Your task to perform on an android device: What's the weather today? Image 0: 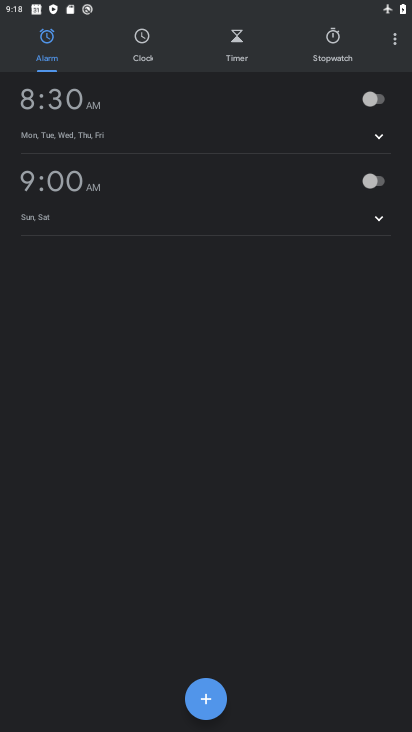
Step 0: press home button
Your task to perform on an android device: What's the weather today? Image 1: 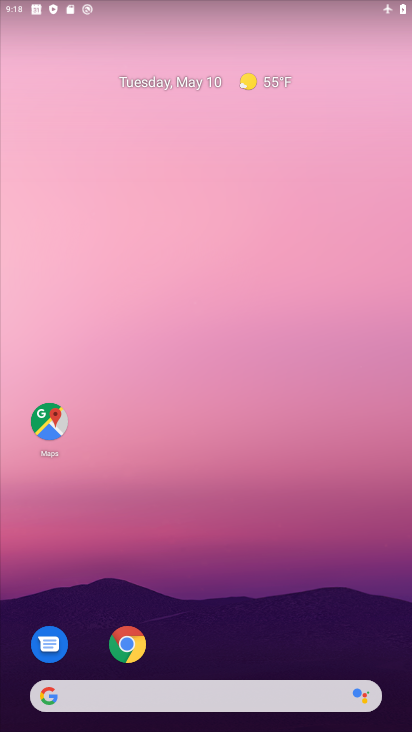
Step 1: drag from (275, 554) to (302, 215)
Your task to perform on an android device: What's the weather today? Image 2: 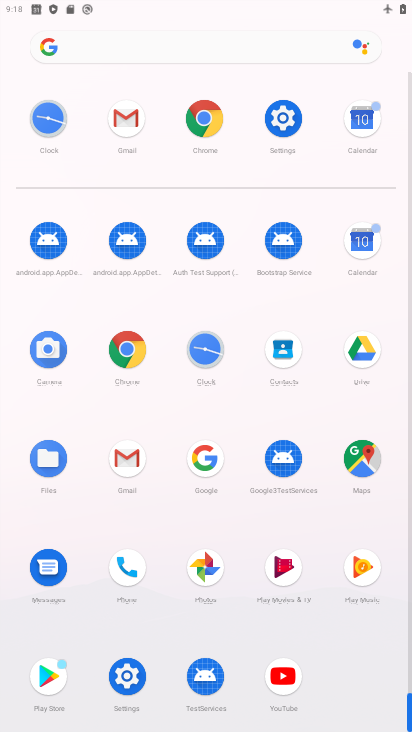
Step 2: click (178, 464)
Your task to perform on an android device: What's the weather today? Image 3: 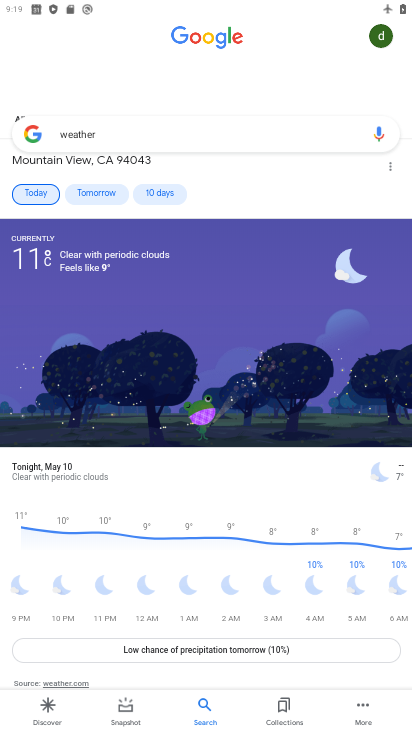
Step 3: task complete